Your task to perform on an android device: Open the Play Movies app and select the watchlist tab. Image 0: 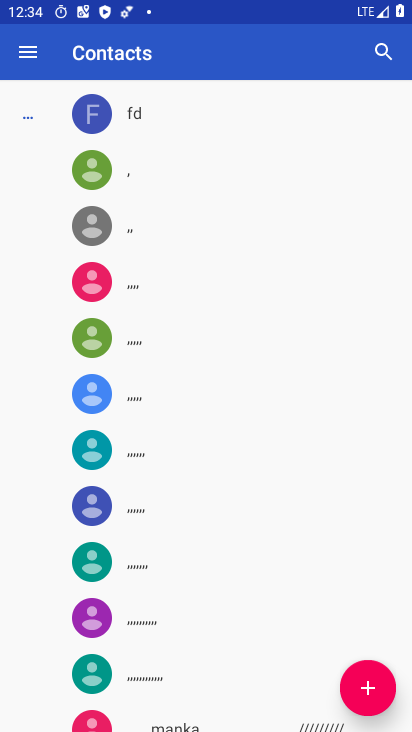
Step 0: press home button
Your task to perform on an android device: Open the Play Movies app and select the watchlist tab. Image 1: 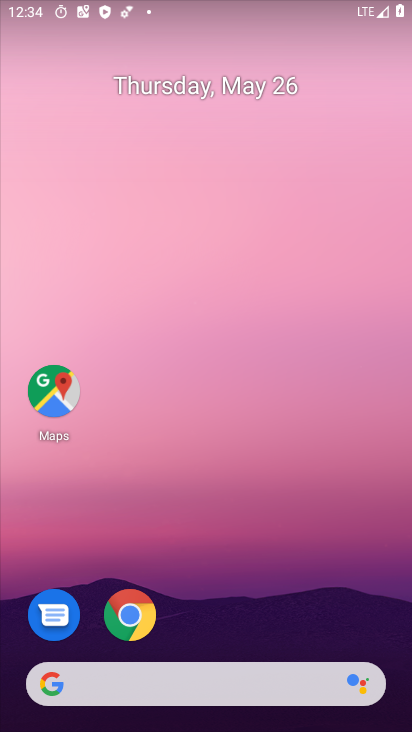
Step 1: drag from (241, 633) to (192, 142)
Your task to perform on an android device: Open the Play Movies app and select the watchlist tab. Image 2: 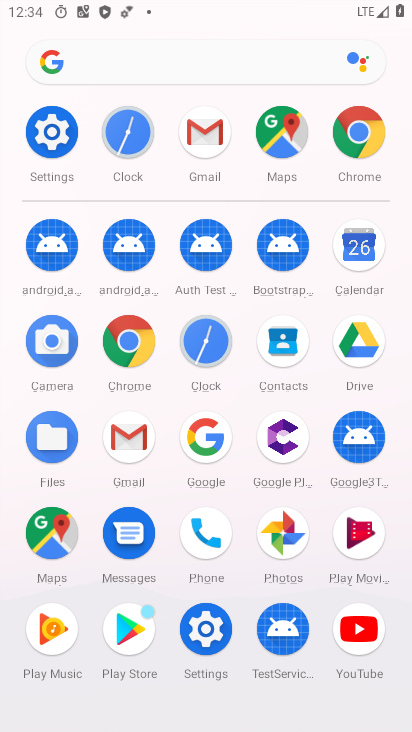
Step 2: click (364, 541)
Your task to perform on an android device: Open the Play Movies app and select the watchlist tab. Image 3: 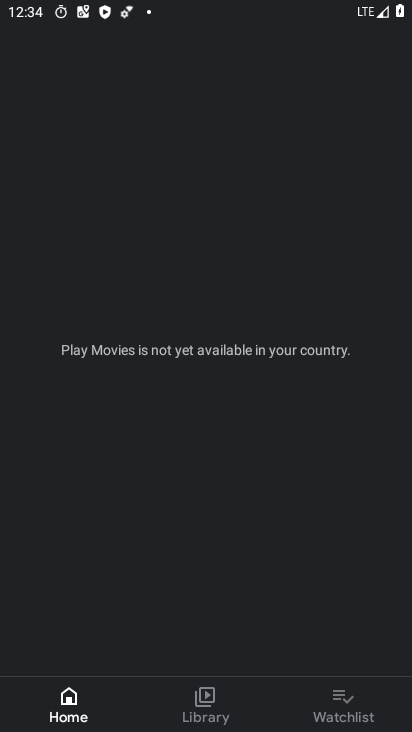
Step 3: click (350, 703)
Your task to perform on an android device: Open the Play Movies app and select the watchlist tab. Image 4: 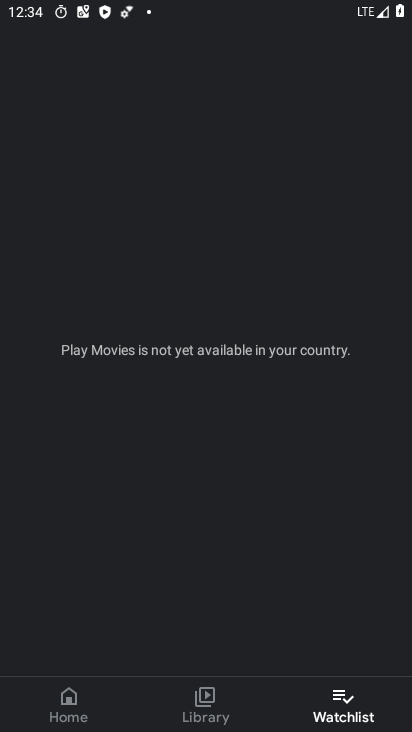
Step 4: task complete